Your task to perform on an android device: Open Google Chrome and open the bookmarks view Image 0: 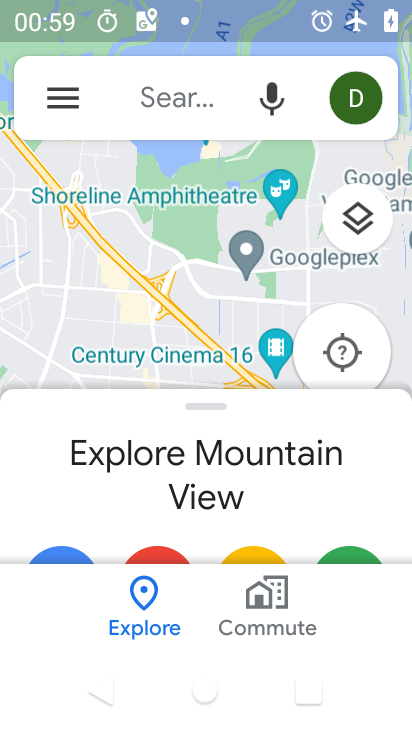
Step 0: press home button
Your task to perform on an android device: Open Google Chrome and open the bookmarks view Image 1: 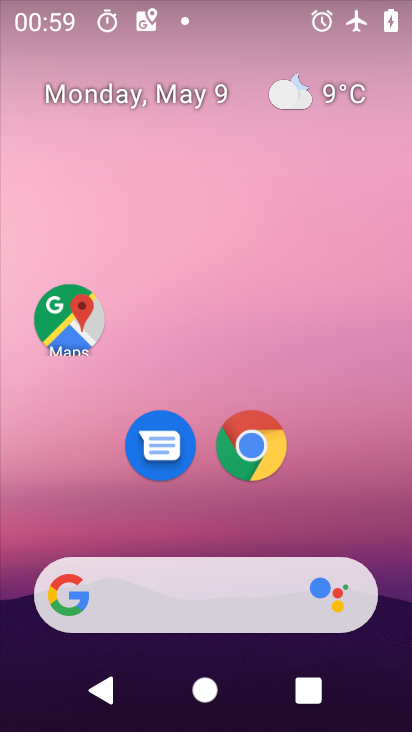
Step 1: click (255, 448)
Your task to perform on an android device: Open Google Chrome and open the bookmarks view Image 2: 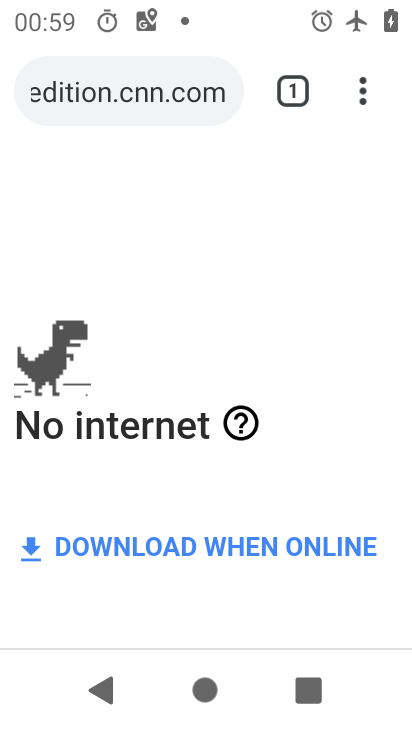
Step 2: click (365, 93)
Your task to perform on an android device: Open Google Chrome and open the bookmarks view Image 3: 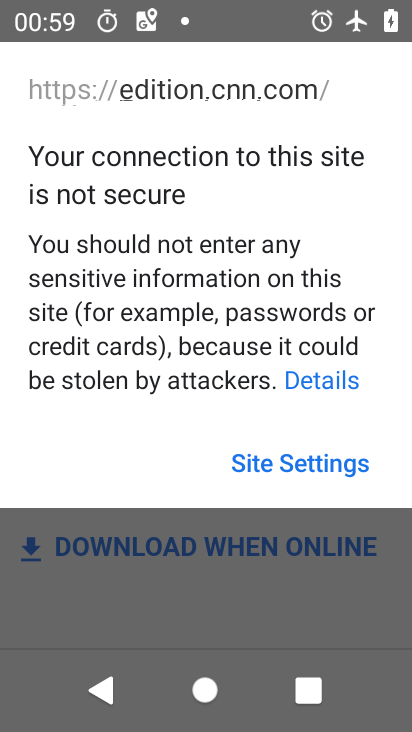
Step 3: click (400, 534)
Your task to perform on an android device: Open Google Chrome and open the bookmarks view Image 4: 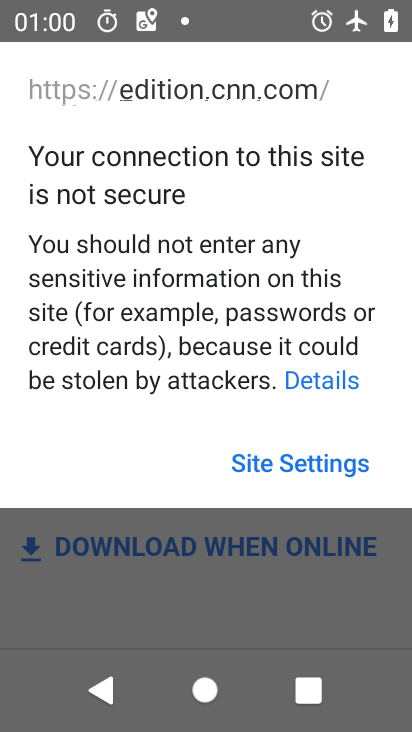
Step 4: click (379, 530)
Your task to perform on an android device: Open Google Chrome and open the bookmarks view Image 5: 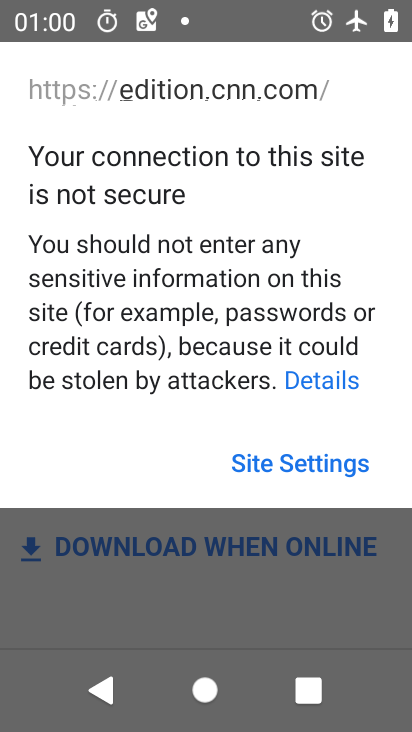
Step 5: click (369, 519)
Your task to perform on an android device: Open Google Chrome and open the bookmarks view Image 6: 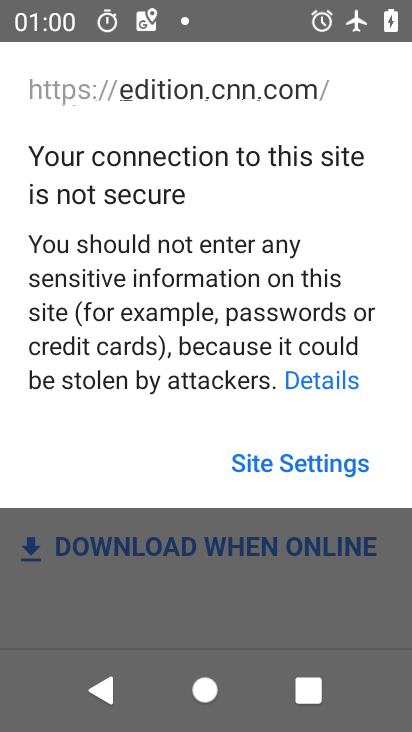
Step 6: click (243, 504)
Your task to perform on an android device: Open Google Chrome and open the bookmarks view Image 7: 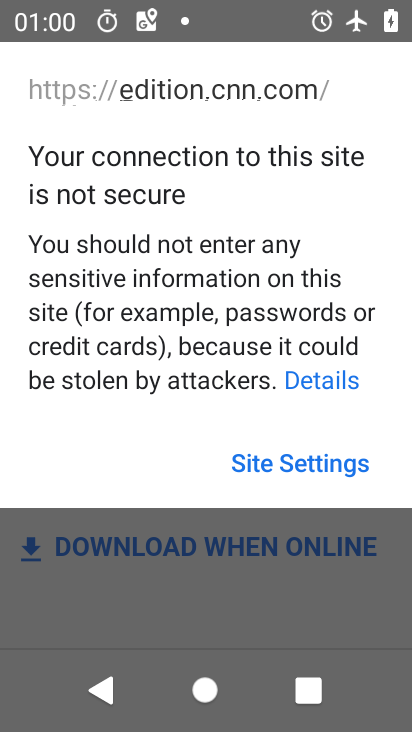
Step 7: click (362, 550)
Your task to perform on an android device: Open Google Chrome and open the bookmarks view Image 8: 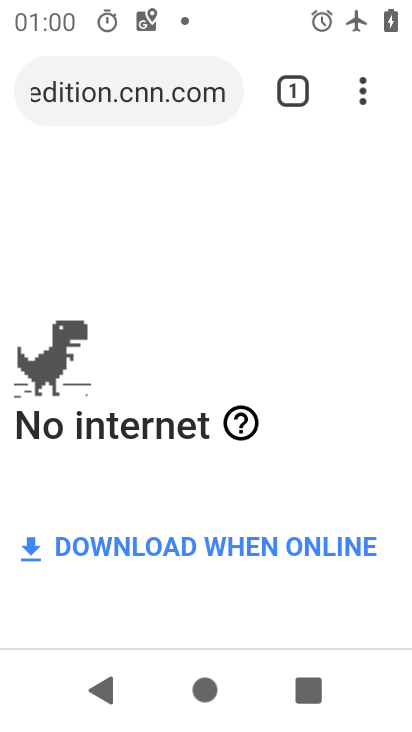
Step 8: task complete